Your task to perform on an android device: delete the emails in spam in the gmail app Image 0: 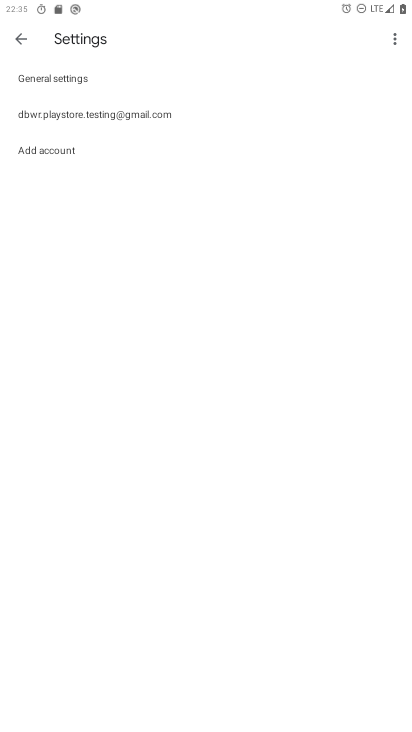
Step 0: press home button
Your task to perform on an android device: delete the emails in spam in the gmail app Image 1: 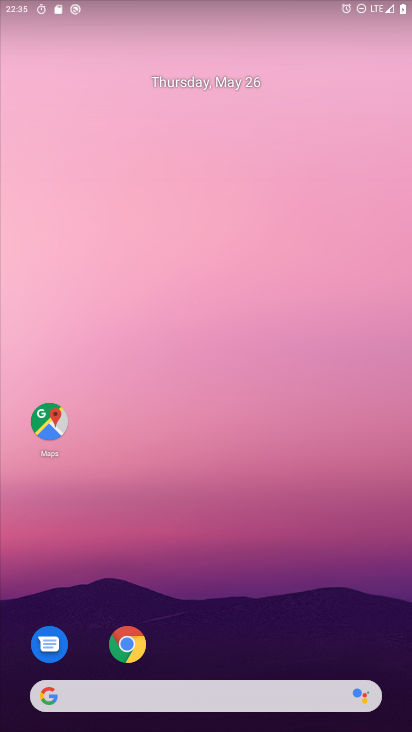
Step 1: drag from (202, 625) to (247, 166)
Your task to perform on an android device: delete the emails in spam in the gmail app Image 2: 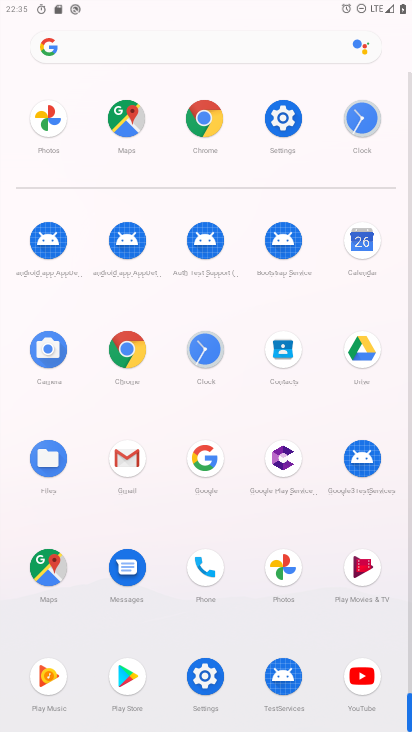
Step 2: click (124, 455)
Your task to perform on an android device: delete the emails in spam in the gmail app Image 3: 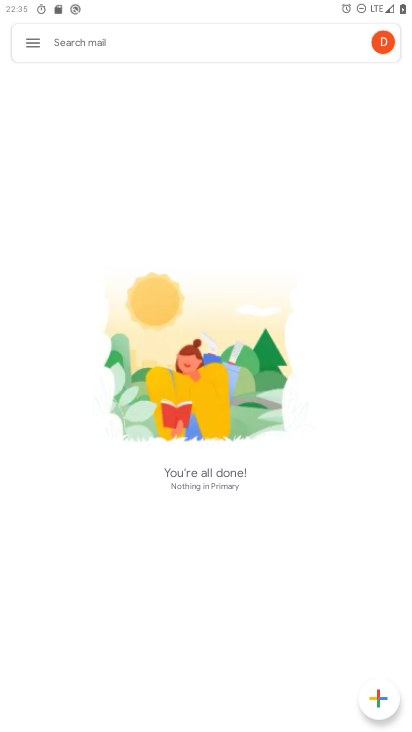
Step 3: click (25, 36)
Your task to perform on an android device: delete the emails in spam in the gmail app Image 4: 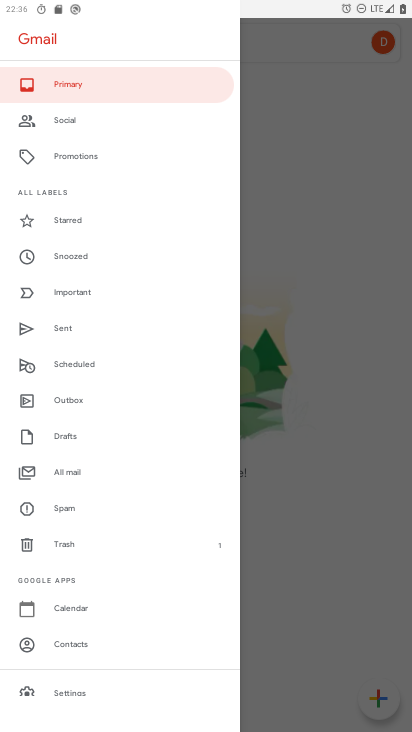
Step 4: click (74, 512)
Your task to perform on an android device: delete the emails in spam in the gmail app Image 5: 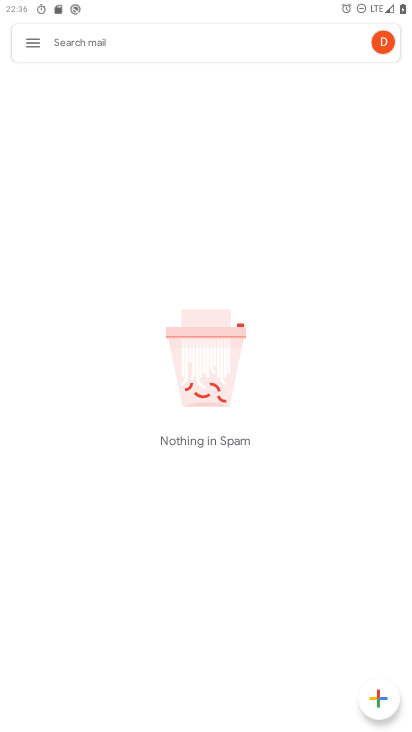
Step 5: task complete